Your task to perform on an android device: toggle translation in the chrome app Image 0: 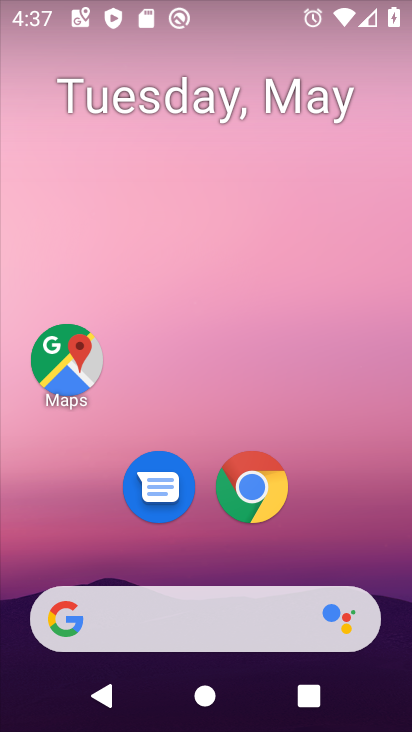
Step 0: click (257, 477)
Your task to perform on an android device: toggle translation in the chrome app Image 1: 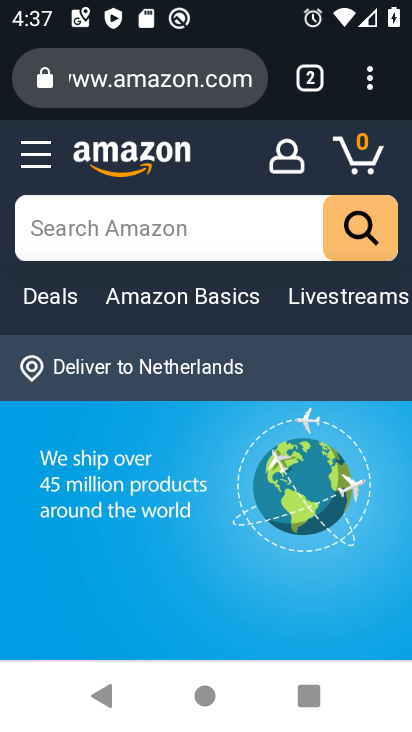
Step 1: drag from (380, 85) to (226, 549)
Your task to perform on an android device: toggle translation in the chrome app Image 2: 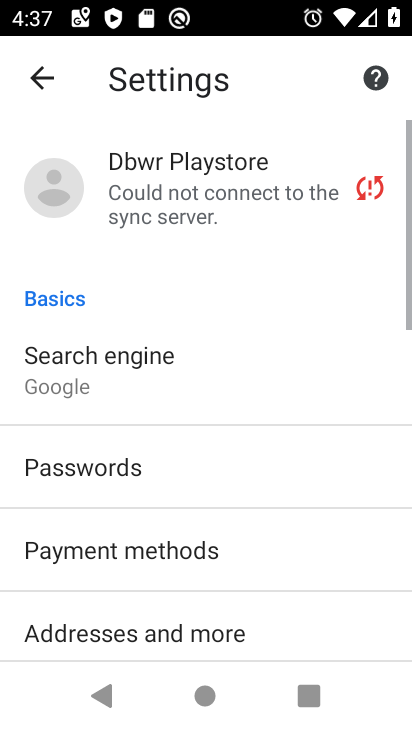
Step 2: drag from (247, 601) to (357, 181)
Your task to perform on an android device: toggle translation in the chrome app Image 3: 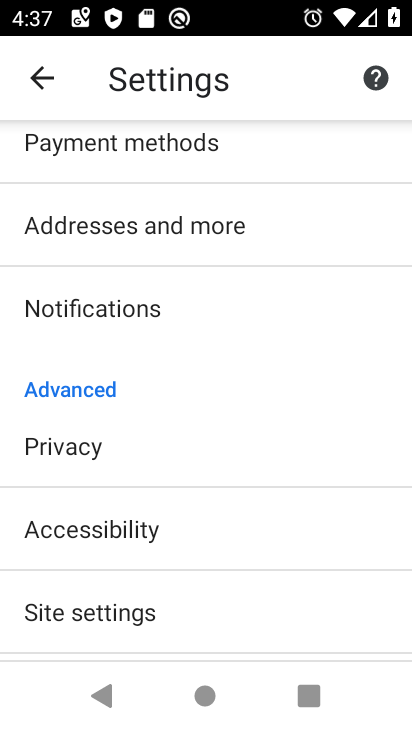
Step 3: drag from (201, 552) to (299, 311)
Your task to perform on an android device: toggle translation in the chrome app Image 4: 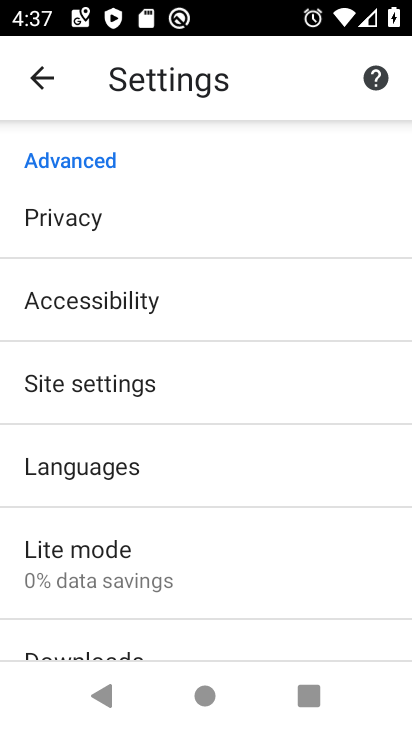
Step 4: drag from (212, 499) to (290, 344)
Your task to perform on an android device: toggle translation in the chrome app Image 5: 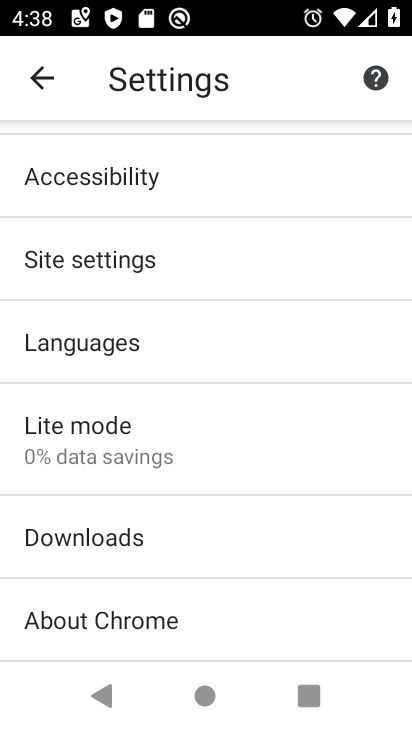
Step 5: click (70, 339)
Your task to perform on an android device: toggle translation in the chrome app Image 6: 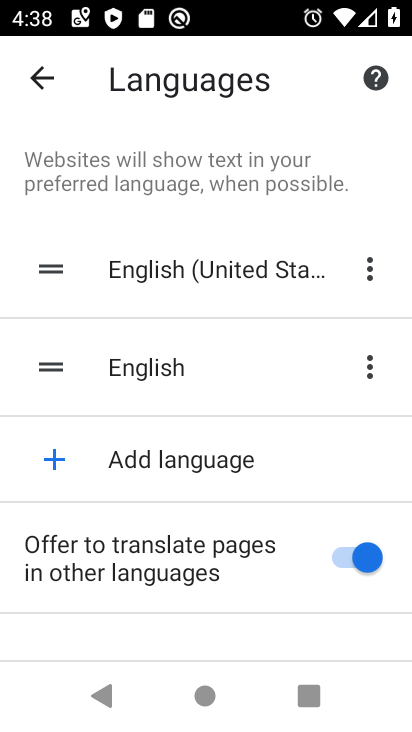
Step 6: click (352, 561)
Your task to perform on an android device: toggle translation in the chrome app Image 7: 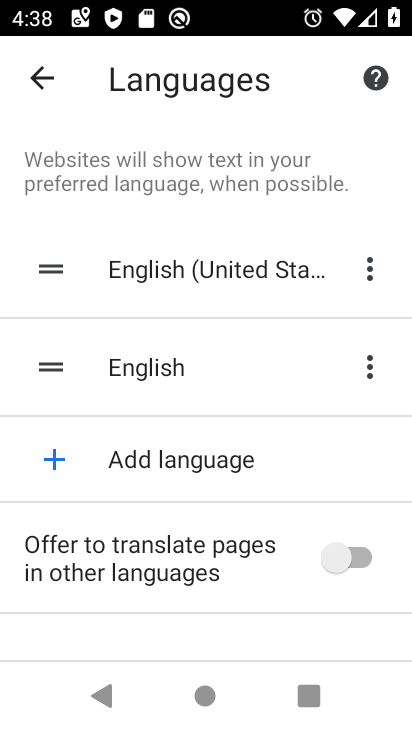
Step 7: task complete